Your task to perform on an android device: Open network settings Image 0: 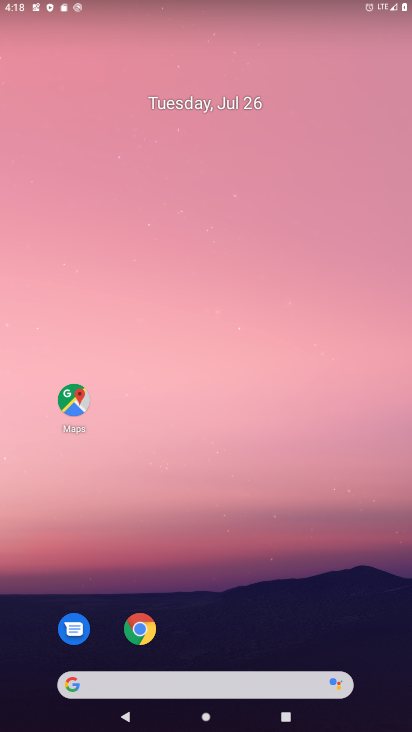
Step 0: drag from (220, 689) to (220, 87)
Your task to perform on an android device: Open network settings Image 1: 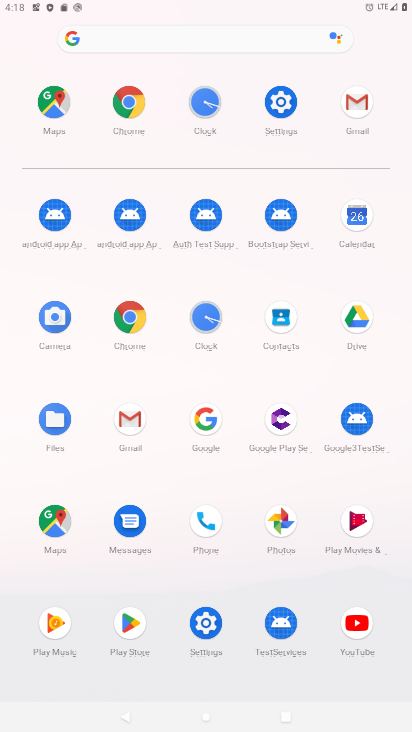
Step 1: click (284, 94)
Your task to perform on an android device: Open network settings Image 2: 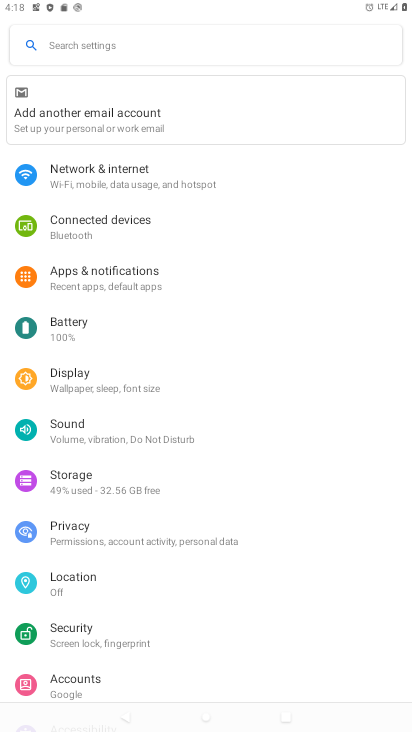
Step 2: click (95, 182)
Your task to perform on an android device: Open network settings Image 3: 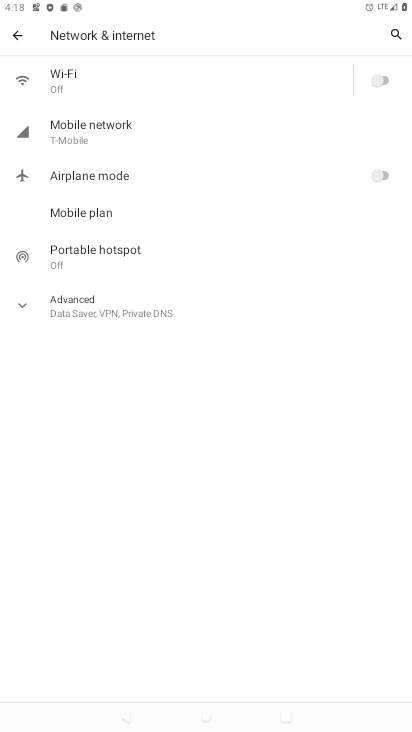
Step 3: click (88, 130)
Your task to perform on an android device: Open network settings Image 4: 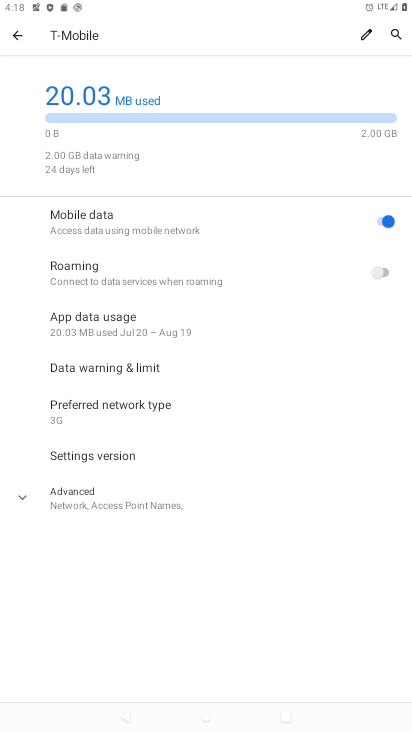
Step 4: task complete